Your task to perform on an android device: Check my gmail inbox Image 0: 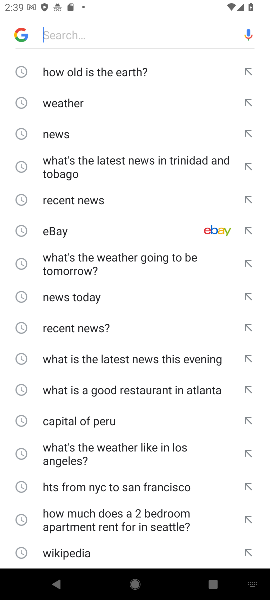
Step 0: press home button
Your task to perform on an android device: Check my gmail inbox Image 1: 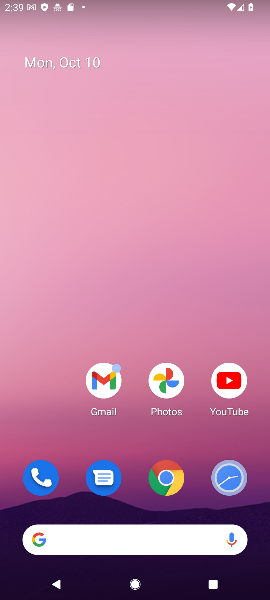
Step 1: click (104, 368)
Your task to perform on an android device: Check my gmail inbox Image 2: 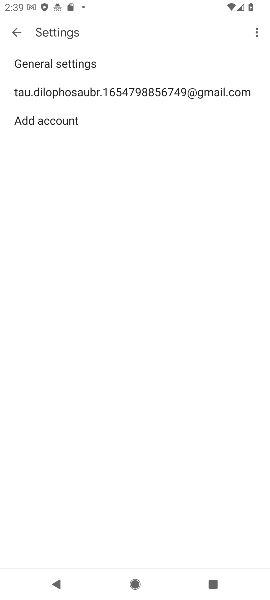
Step 2: click (85, 102)
Your task to perform on an android device: Check my gmail inbox Image 3: 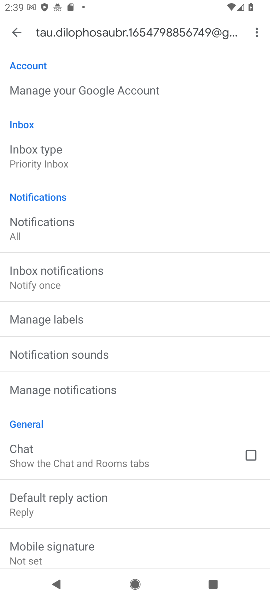
Step 3: click (21, 34)
Your task to perform on an android device: Check my gmail inbox Image 4: 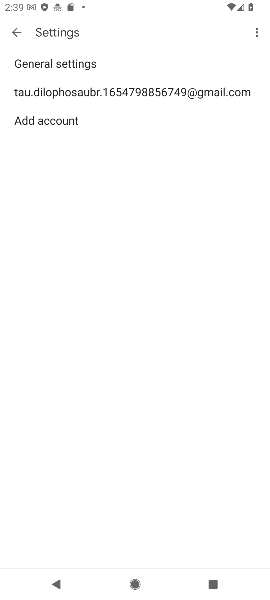
Step 4: click (21, 34)
Your task to perform on an android device: Check my gmail inbox Image 5: 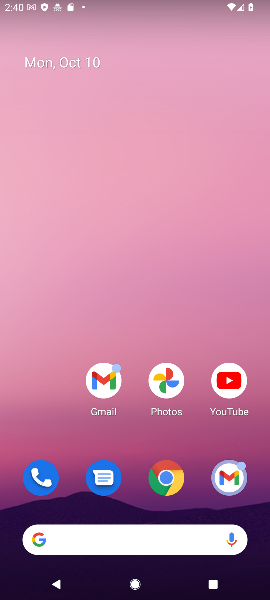
Step 5: click (106, 370)
Your task to perform on an android device: Check my gmail inbox Image 6: 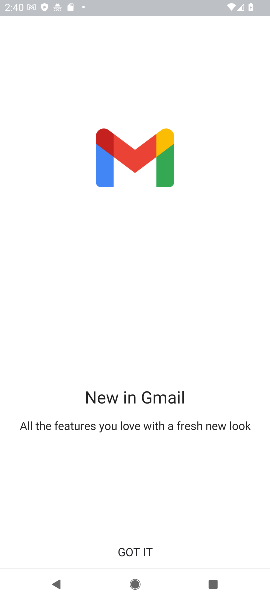
Step 6: click (120, 545)
Your task to perform on an android device: Check my gmail inbox Image 7: 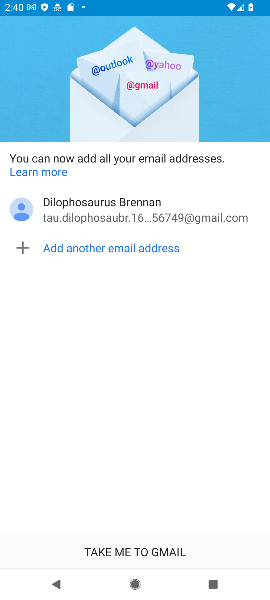
Step 7: click (120, 545)
Your task to perform on an android device: Check my gmail inbox Image 8: 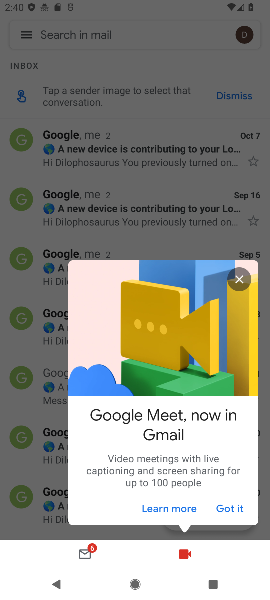
Step 8: click (221, 506)
Your task to perform on an android device: Check my gmail inbox Image 9: 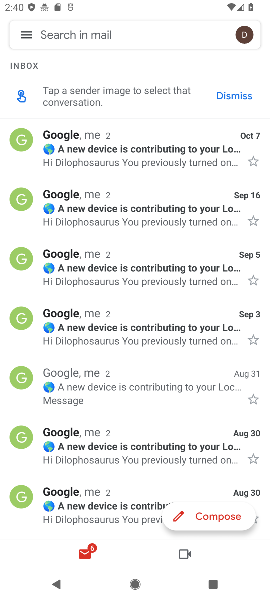
Step 9: task complete